Your task to perform on an android device: Open the Play Movies app and select the watchlist tab. Image 0: 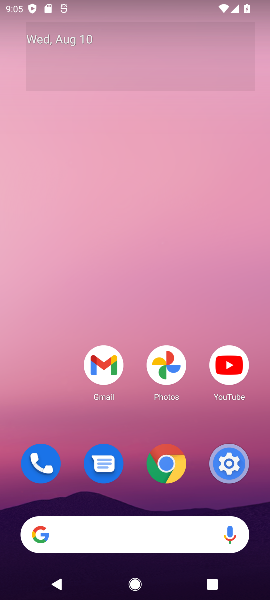
Step 0: drag from (13, 572) to (7, 236)
Your task to perform on an android device: Open the Play Movies app and select the watchlist tab. Image 1: 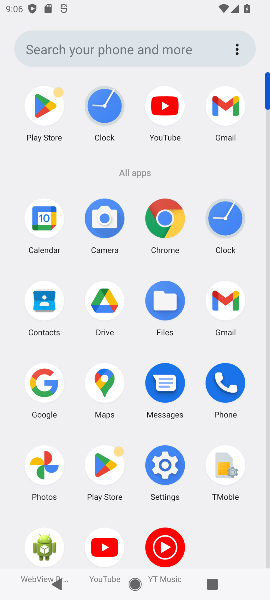
Step 1: task complete